Your task to perform on an android device: Open Youtube and go to "Your channel" Image 0: 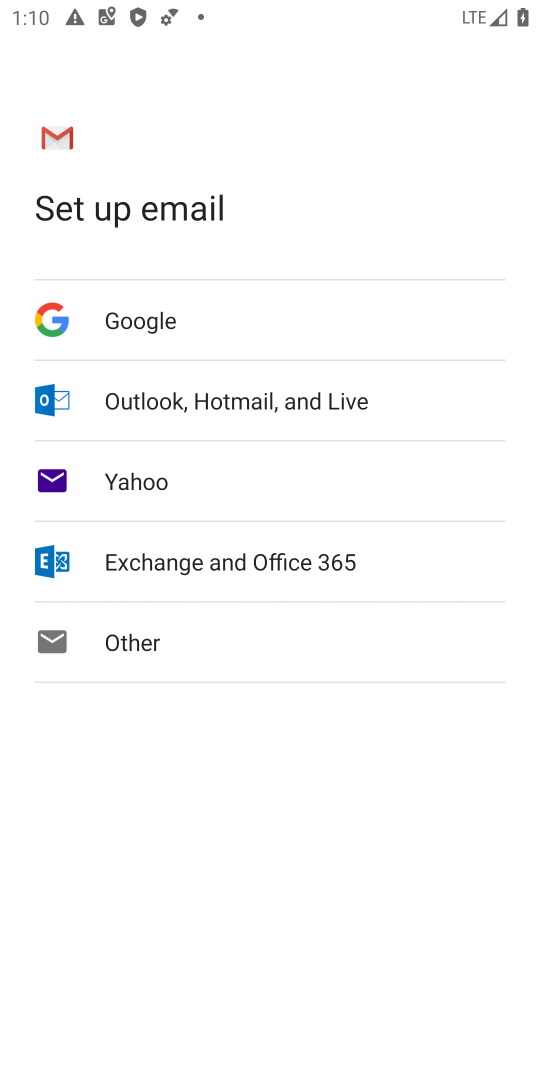
Step 0: press home button
Your task to perform on an android device: Open Youtube and go to "Your channel" Image 1: 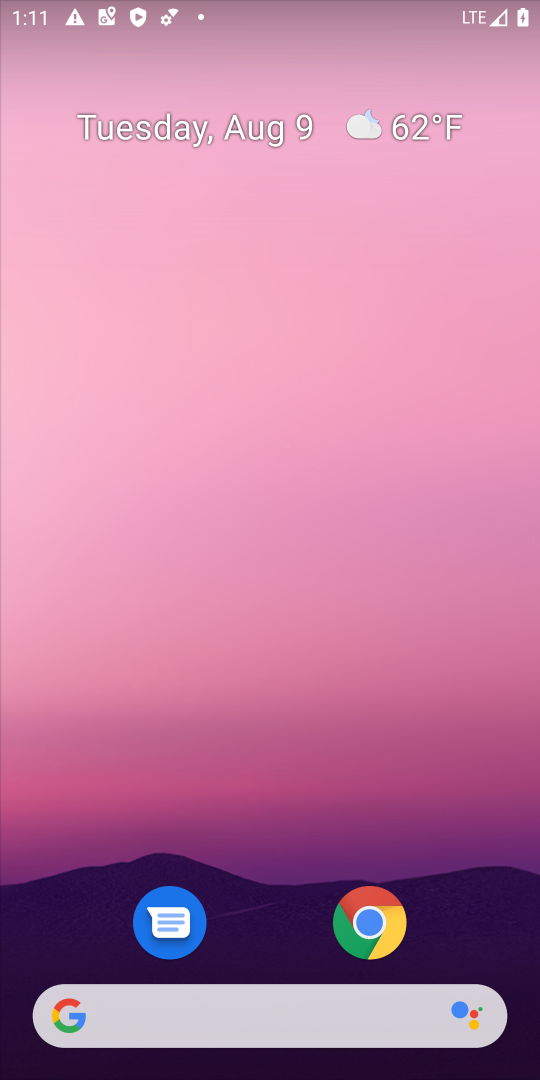
Step 1: drag from (287, 947) to (209, 175)
Your task to perform on an android device: Open Youtube and go to "Your channel" Image 2: 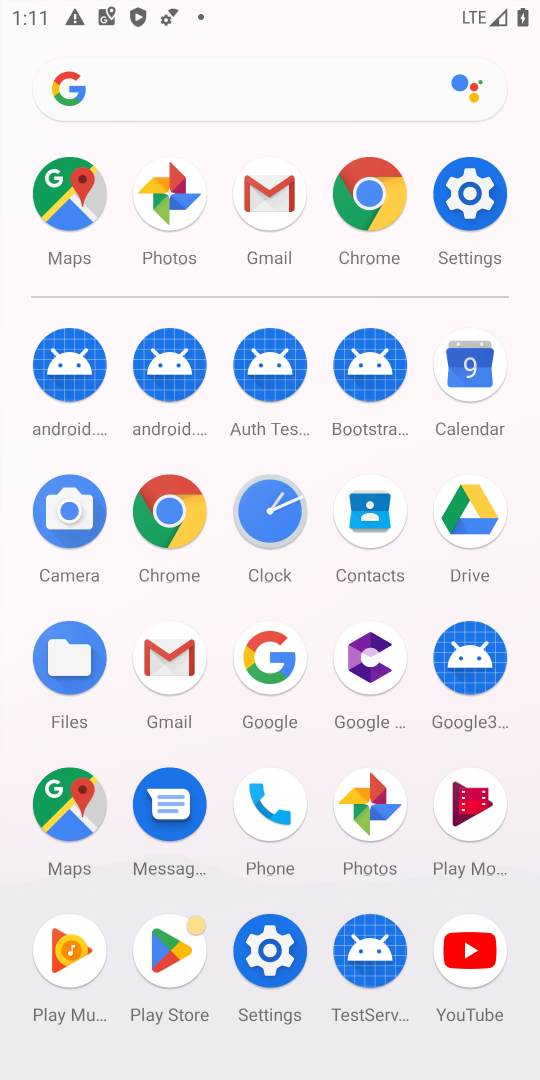
Step 2: click (458, 928)
Your task to perform on an android device: Open Youtube and go to "Your channel" Image 3: 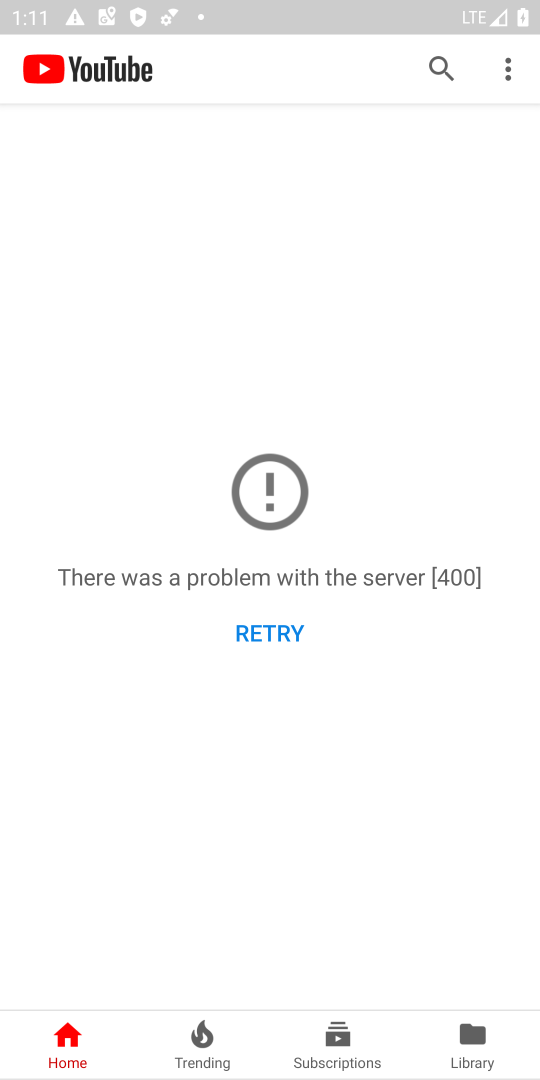
Step 3: click (505, 70)
Your task to perform on an android device: Open Youtube and go to "Your channel" Image 4: 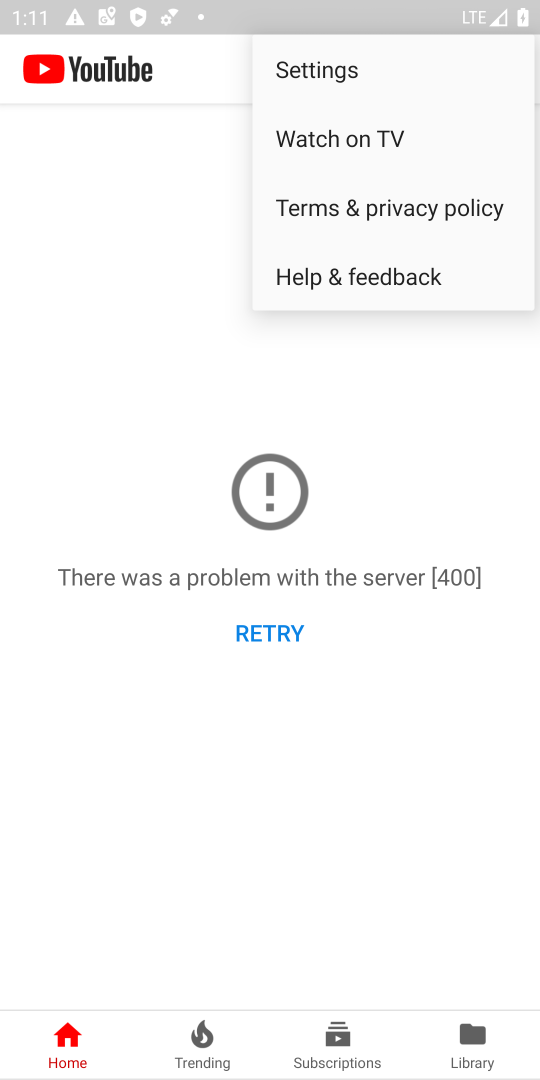
Step 4: click (310, 81)
Your task to perform on an android device: Open Youtube and go to "Your channel" Image 5: 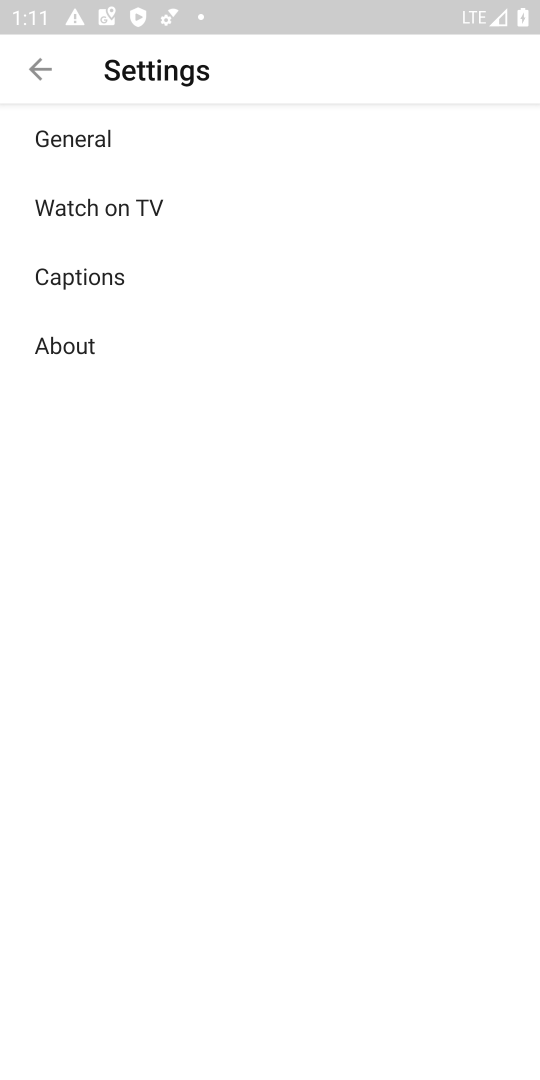
Step 5: click (29, 68)
Your task to perform on an android device: Open Youtube and go to "Your channel" Image 6: 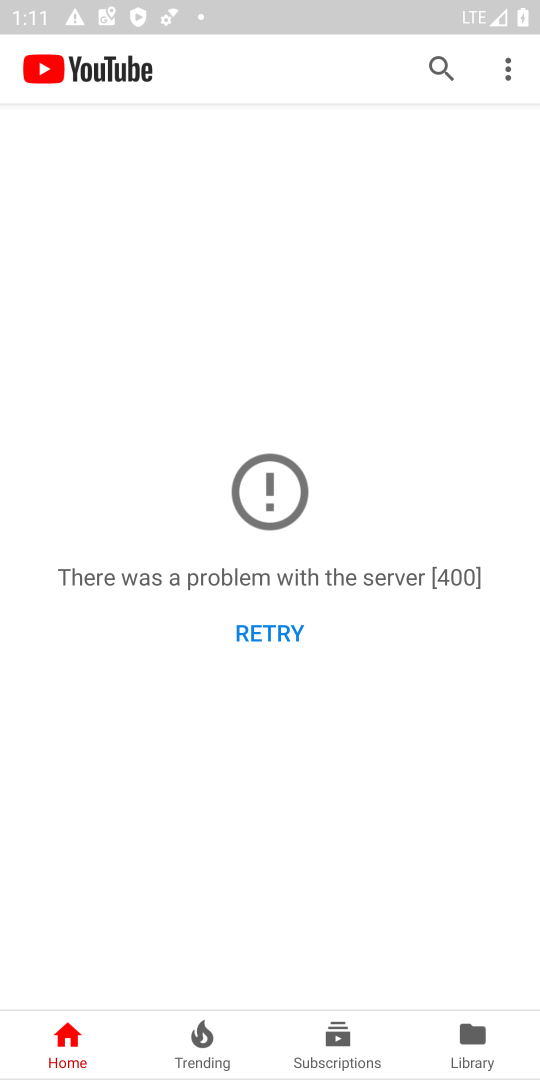
Step 6: task complete